Your task to perform on an android device: Open Chrome and go to the settings page Image 0: 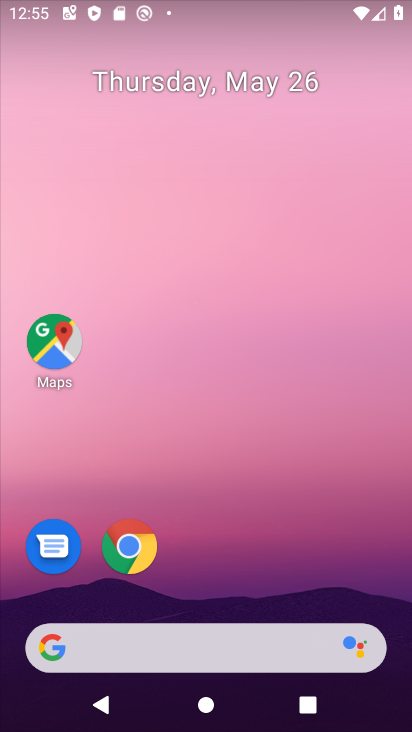
Step 0: press home button
Your task to perform on an android device: Open Chrome and go to the settings page Image 1: 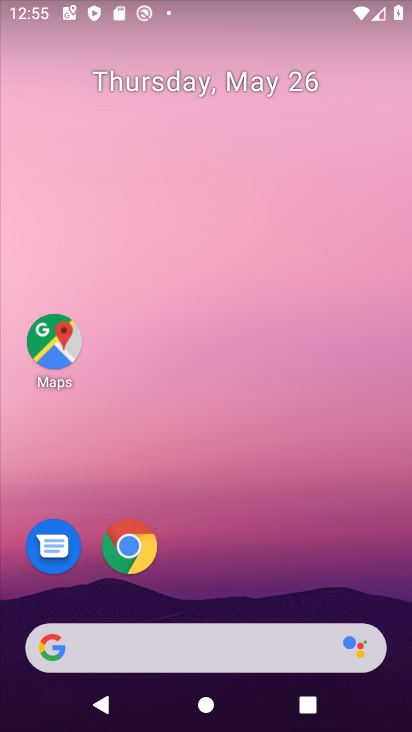
Step 1: click (115, 543)
Your task to perform on an android device: Open Chrome and go to the settings page Image 2: 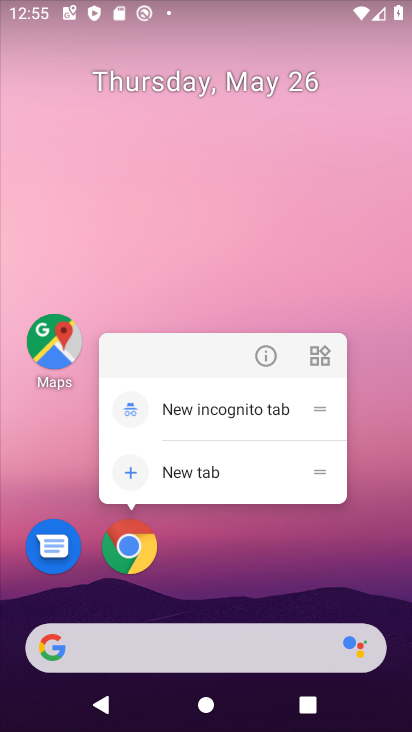
Step 2: click (139, 546)
Your task to perform on an android device: Open Chrome and go to the settings page Image 3: 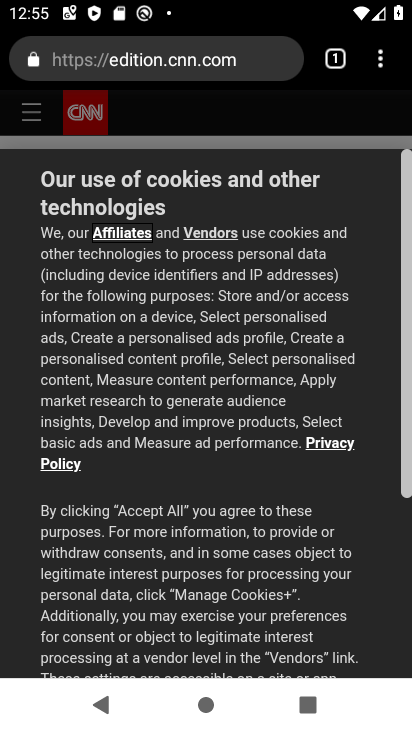
Step 3: task complete